Your task to perform on an android device: Open calendar and show me the first week of next month Image 0: 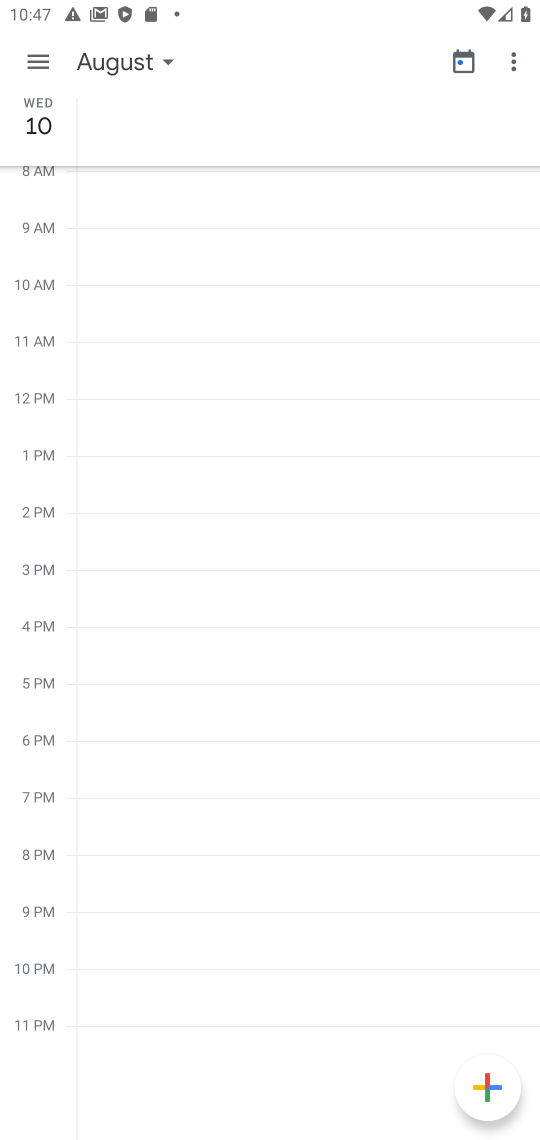
Step 0: click (28, 56)
Your task to perform on an android device: Open calendar and show me the first week of next month Image 1: 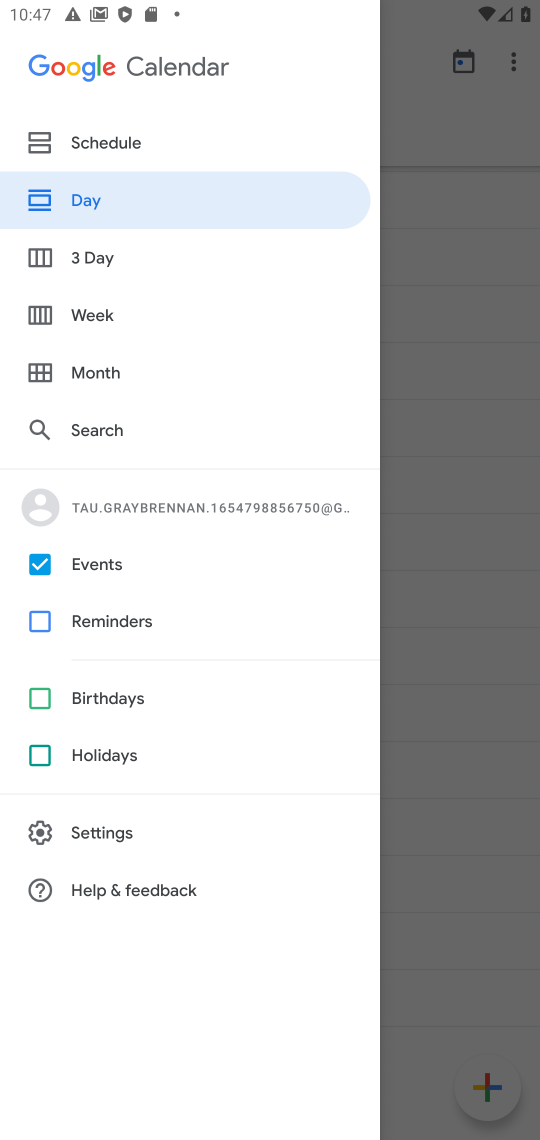
Step 1: click (133, 321)
Your task to perform on an android device: Open calendar and show me the first week of next month Image 2: 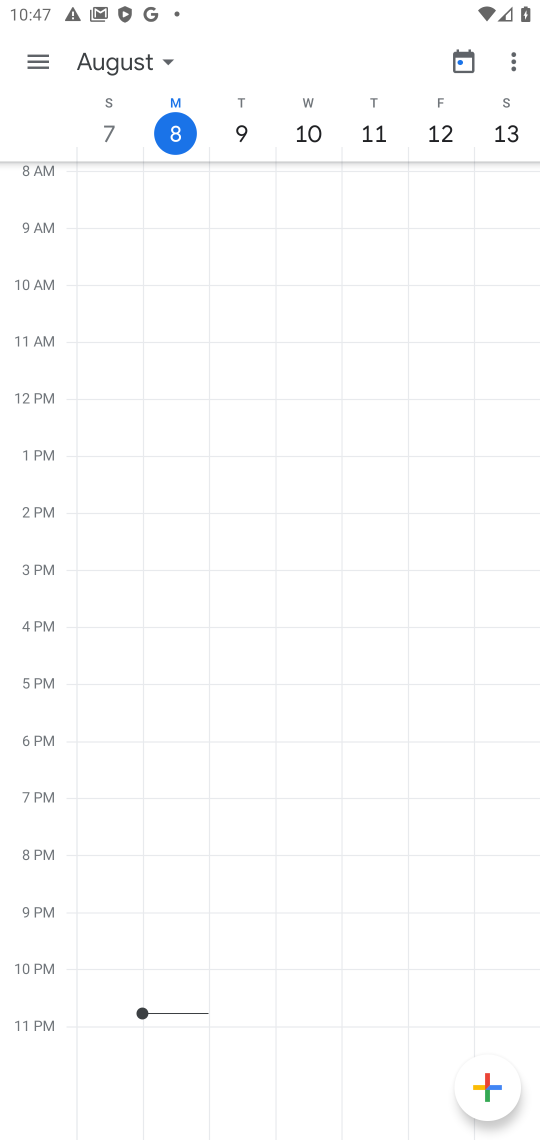
Step 2: task complete